Your task to perform on an android device: Search for pizza restaurants on Maps Image 0: 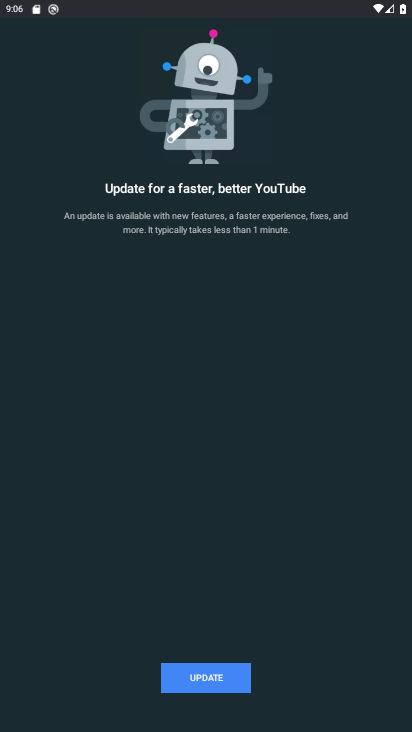
Step 0: press back button
Your task to perform on an android device: Search for pizza restaurants on Maps Image 1: 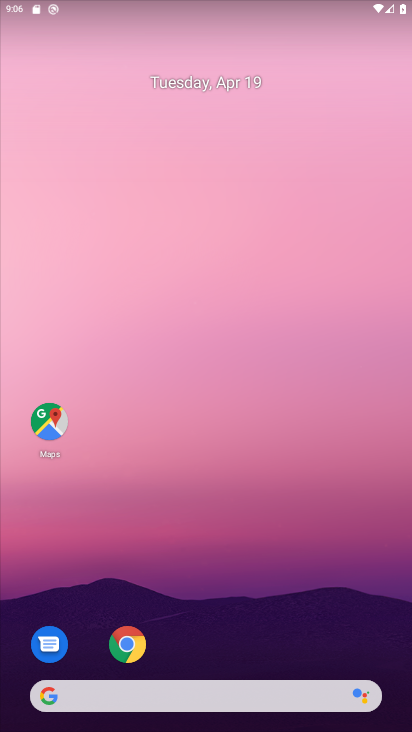
Step 1: drag from (255, 614) to (268, 139)
Your task to perform on an android device: Search for pizza restaurants on Maps Image 2: 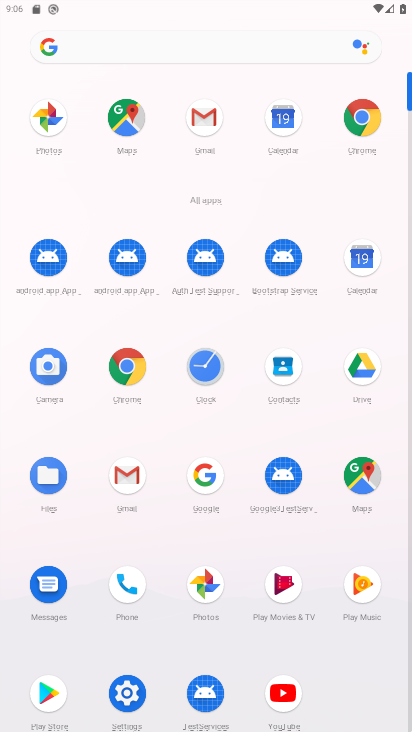
Step 2: click (408, 430)
Your task to perform on an android device: Search for pizza restaurants on Maps Image 3: 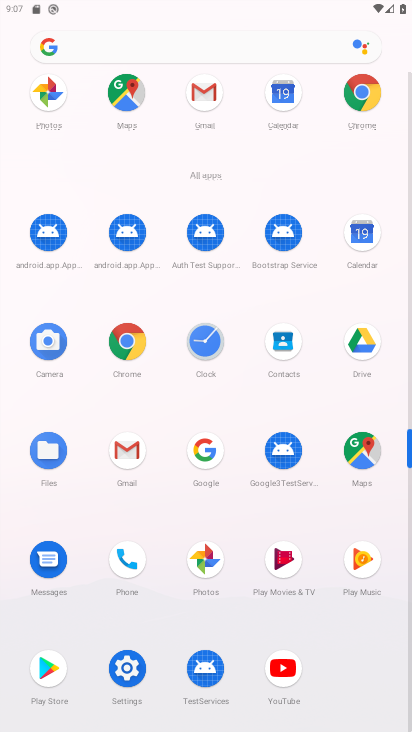
Step 3: click (355, 444)
Your task to perform on an android device: Search for pizza restaurants on Maps Image 4: 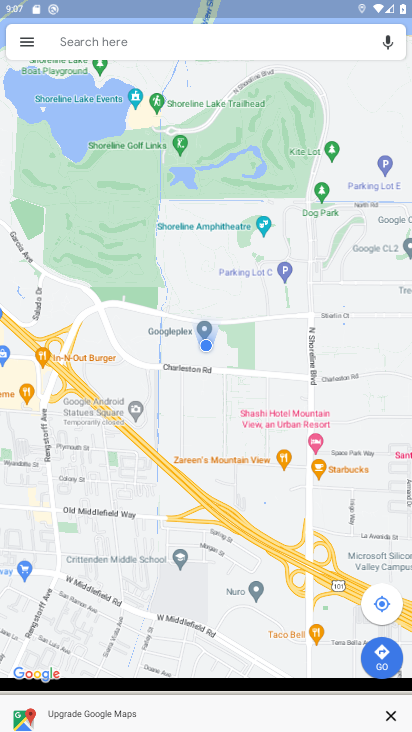
Step 4: click (164, 46)
Your task to perform on an android device: Search for pizza restaurants on Maps Image 5: 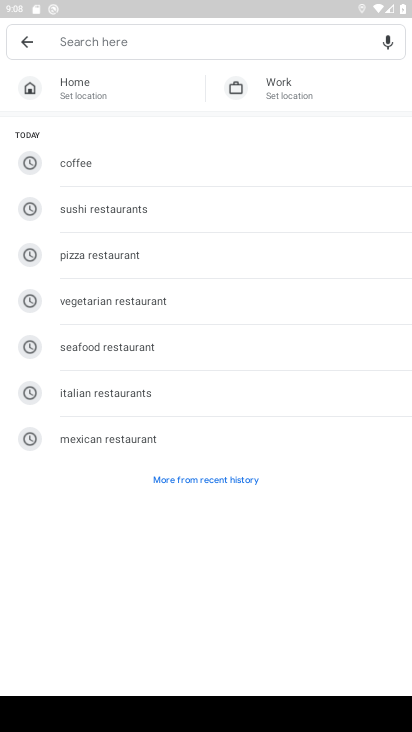
Step 5: click (162, 271)
Your task to perform on an android device: Search for pizza restaurants on Maps Image 6: 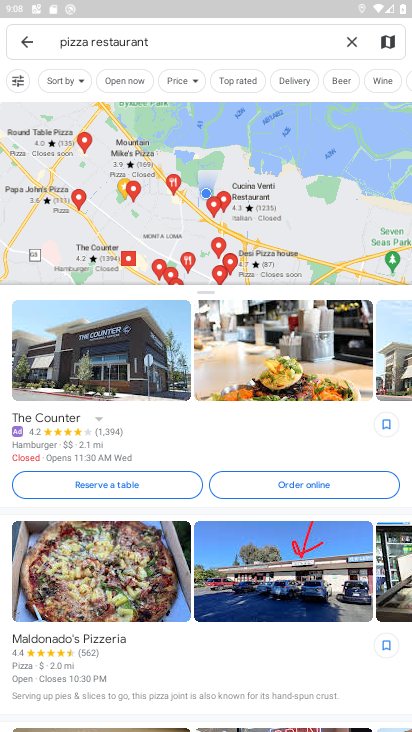
Step 6: task complete